Your task to perform on an android device: open wifi settings Image 0: 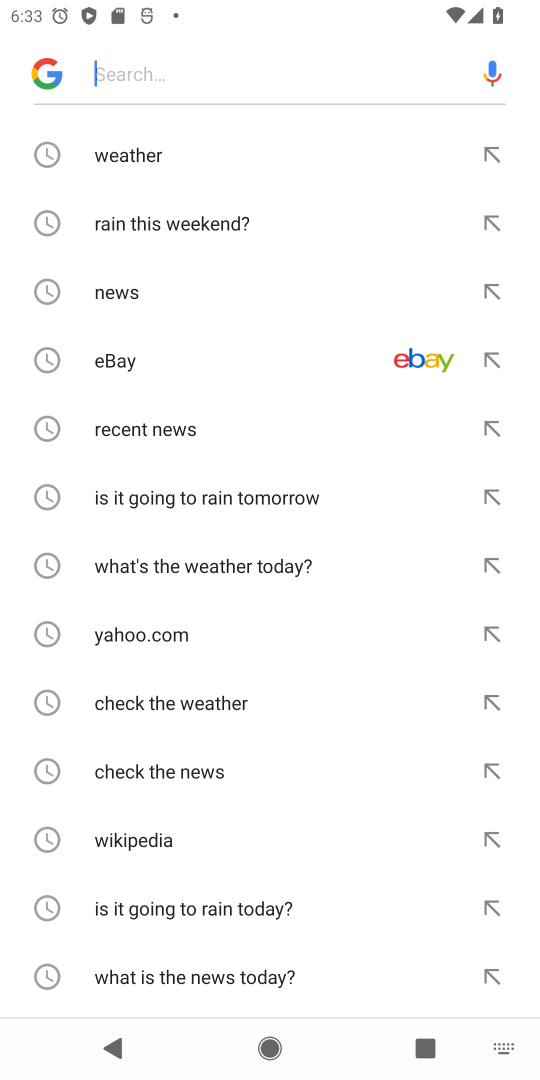
Step 0: press home button
Your task to perform on an android device: open wifi settings Image 1: 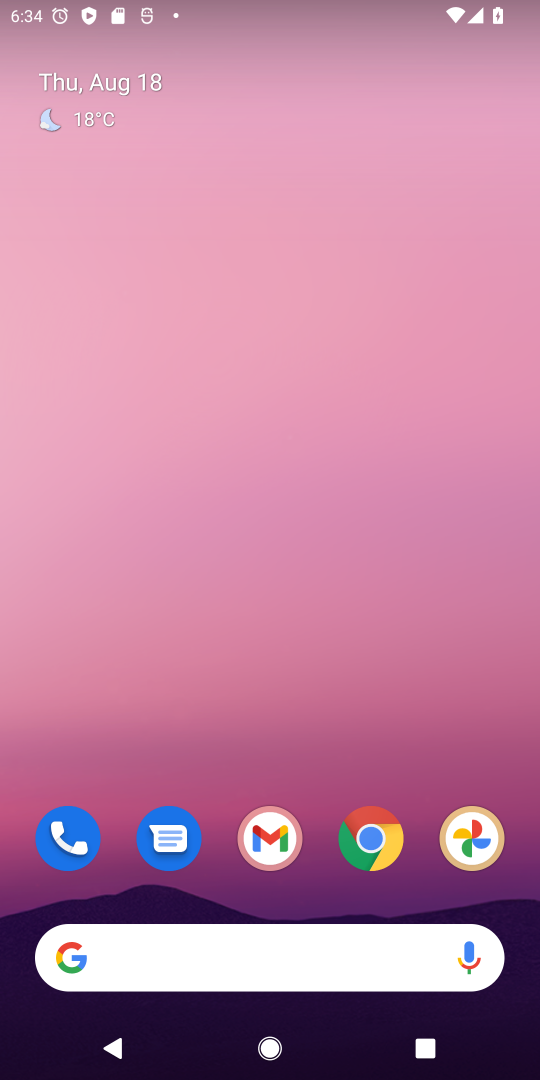
Step 1: drag from (341, 705) to (353, 56)
Your task to perform on an android device: open wifi settings Image 2: 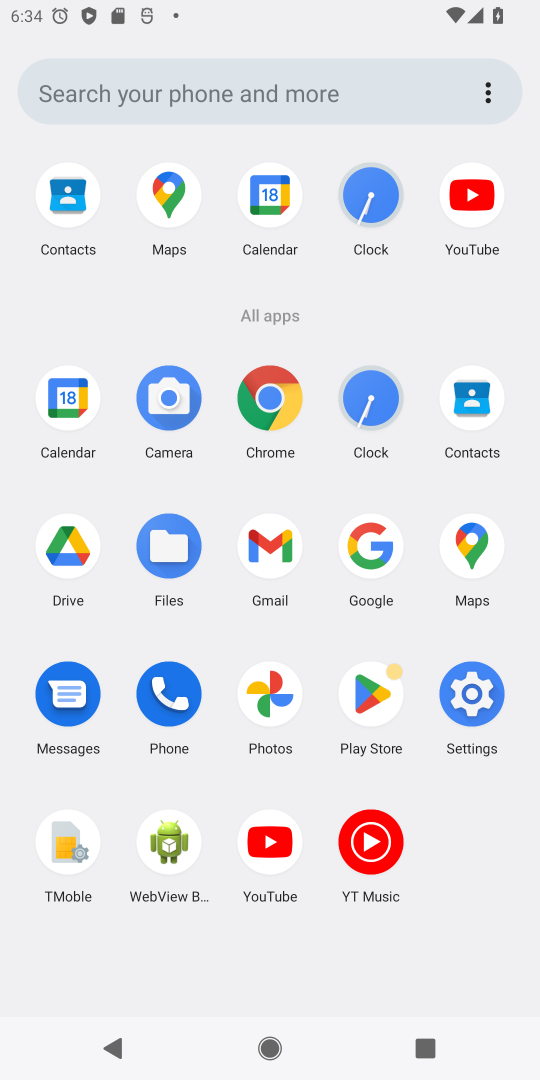
Step 2: click (477, 703)
Your task to perform on an android device: open wifi settings Image 3: 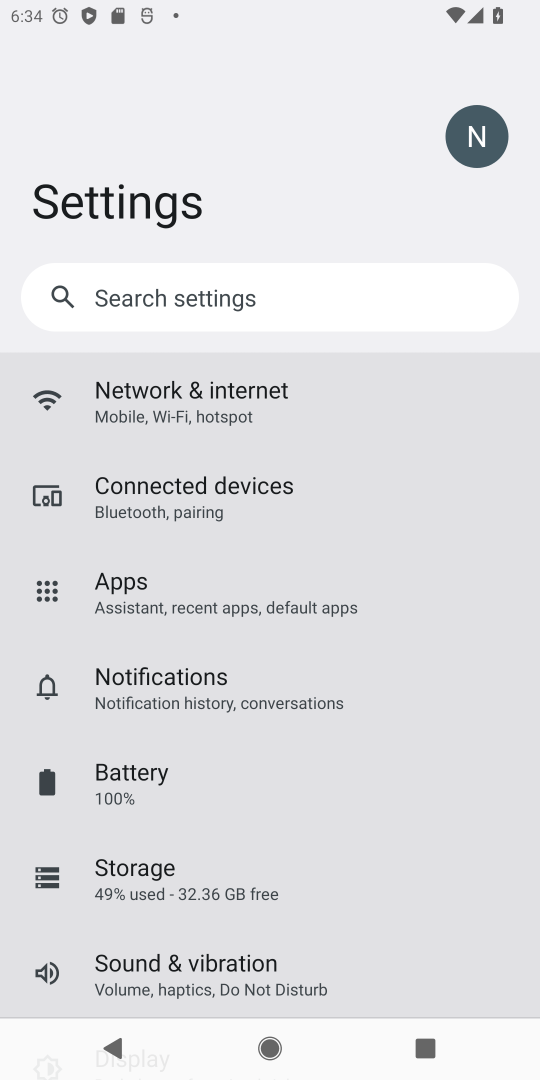
Step 3: click (152, 394)
Your task to perform on an android device: open wifi settings Image 4: 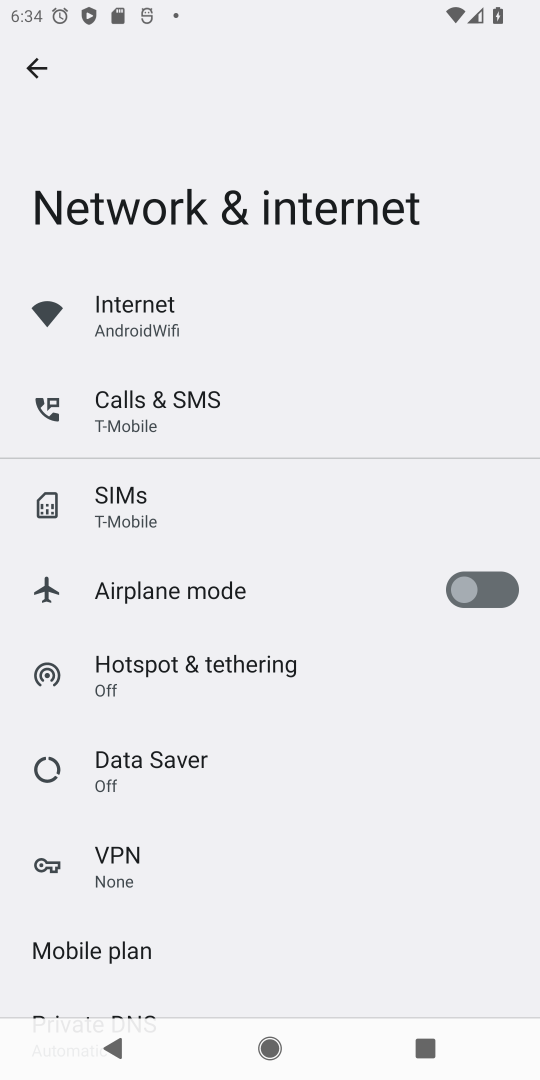
Step 4: click (136, 318)
Your task to perform on an android device: open wifi settings Image 5: 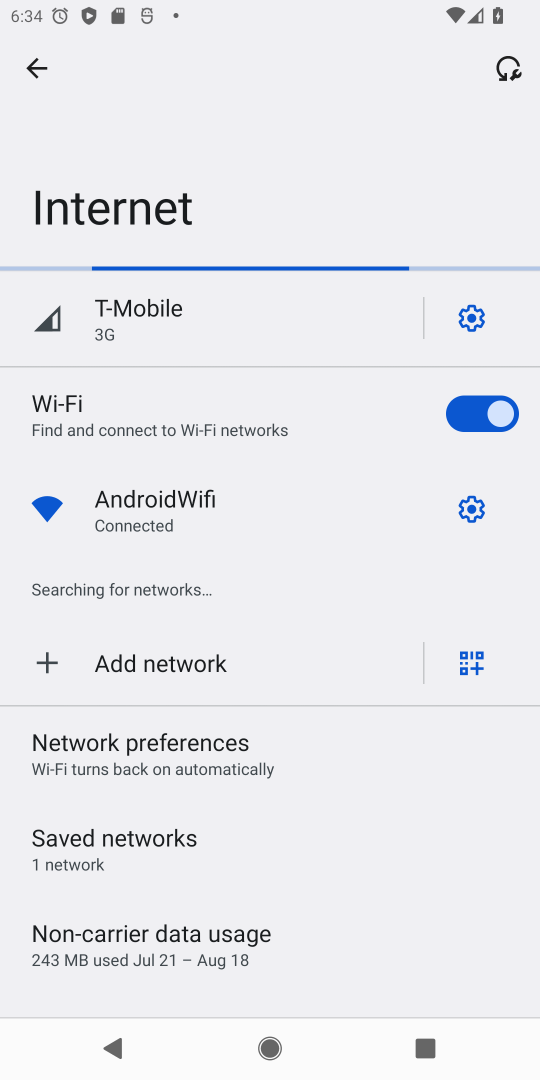
Step 5: click (130, 505)
Your task to perform on an android device: open wifi settings Image 6: 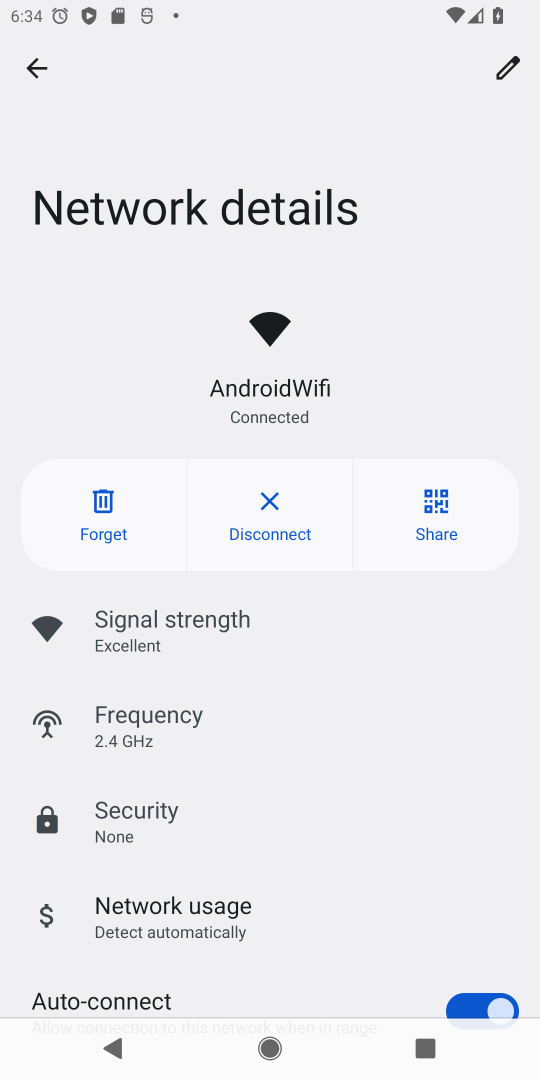
Step 6: task complete